Your task to perform on an android device: Clear the cart on ebay. Add "bose soundlink" to the cart on ebay, then select checkout. Image 0: 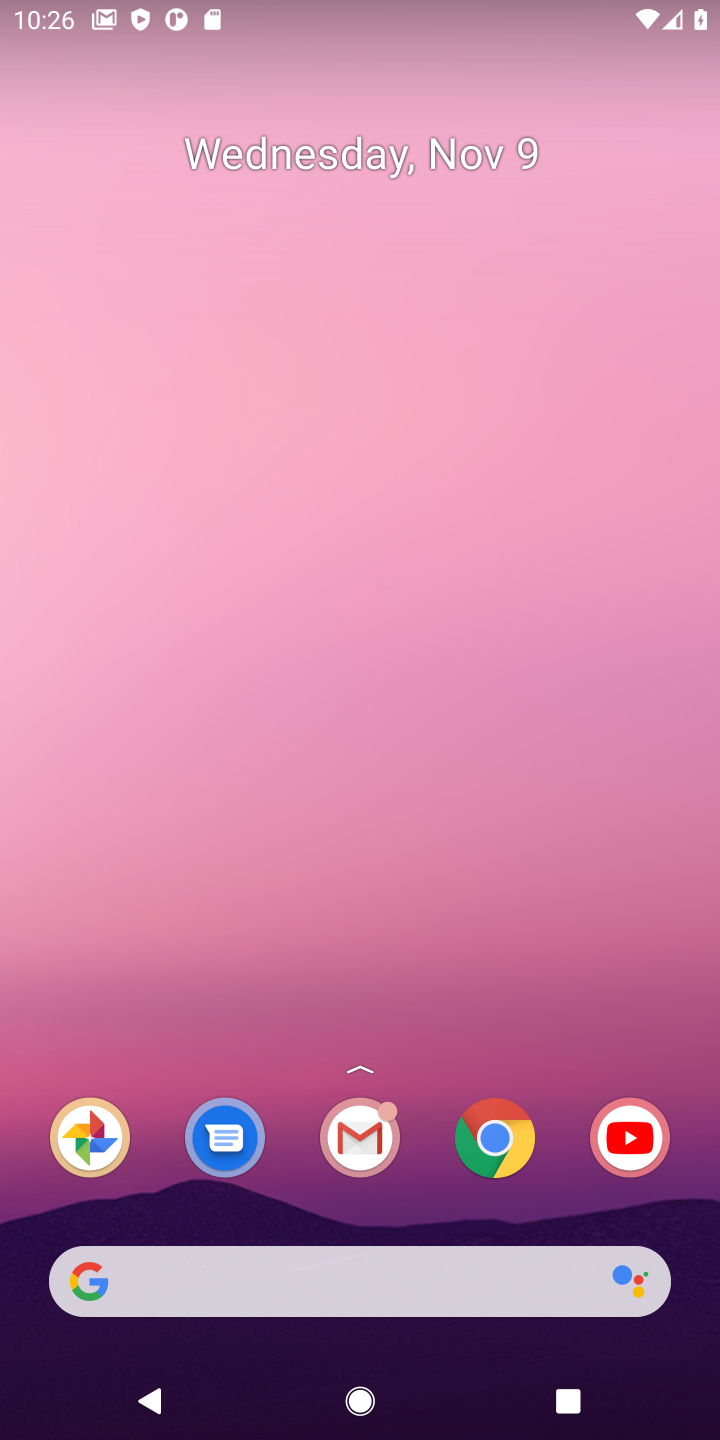
Step 0: drag from (426, 795) to (485, 157)
Your task to perform on an android device: Clear the cart on ebay. Add "bose soundlink" to the cart on ebay, then select checkout. Image 1: 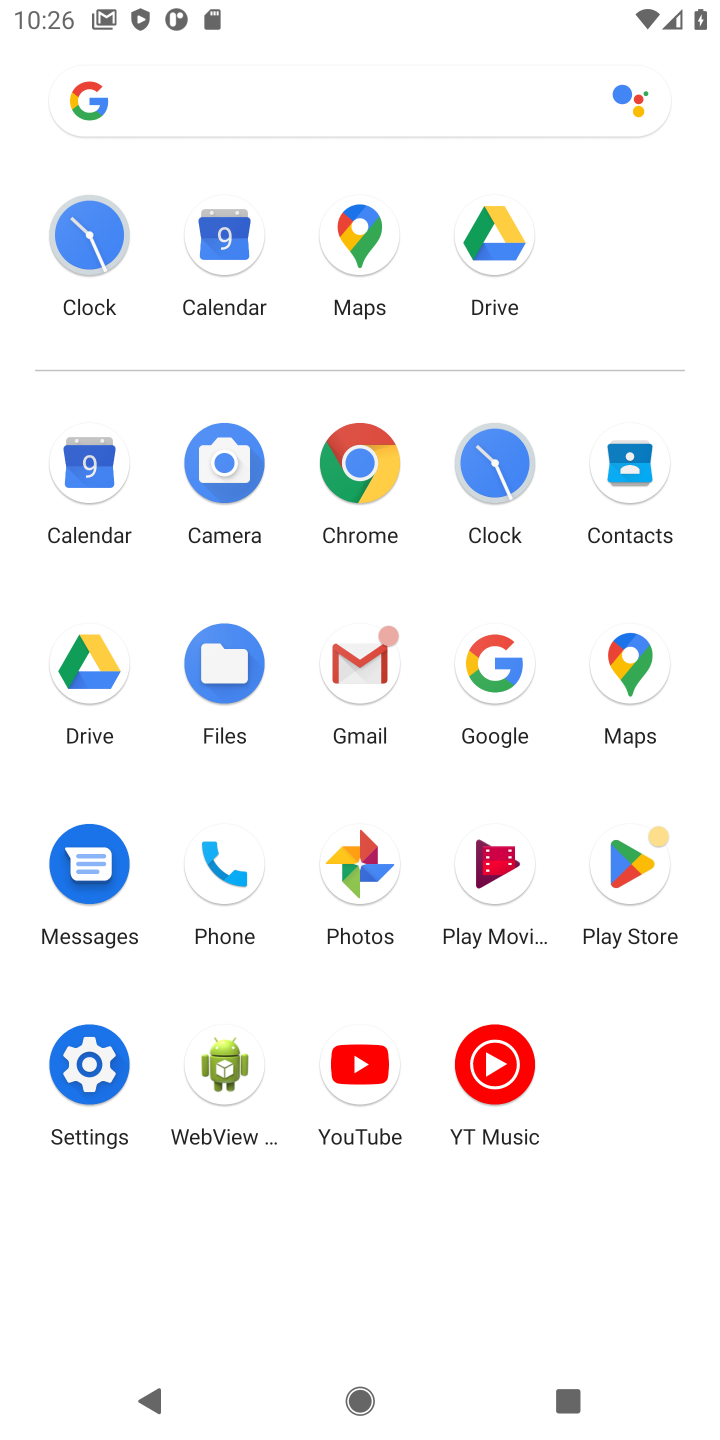
Step 1: click (347, 466)
Your task to perform on an android device: Clear the cart on ebay. Add "bose soundlink" to the cart on ebay, then select checkout. Image 2: 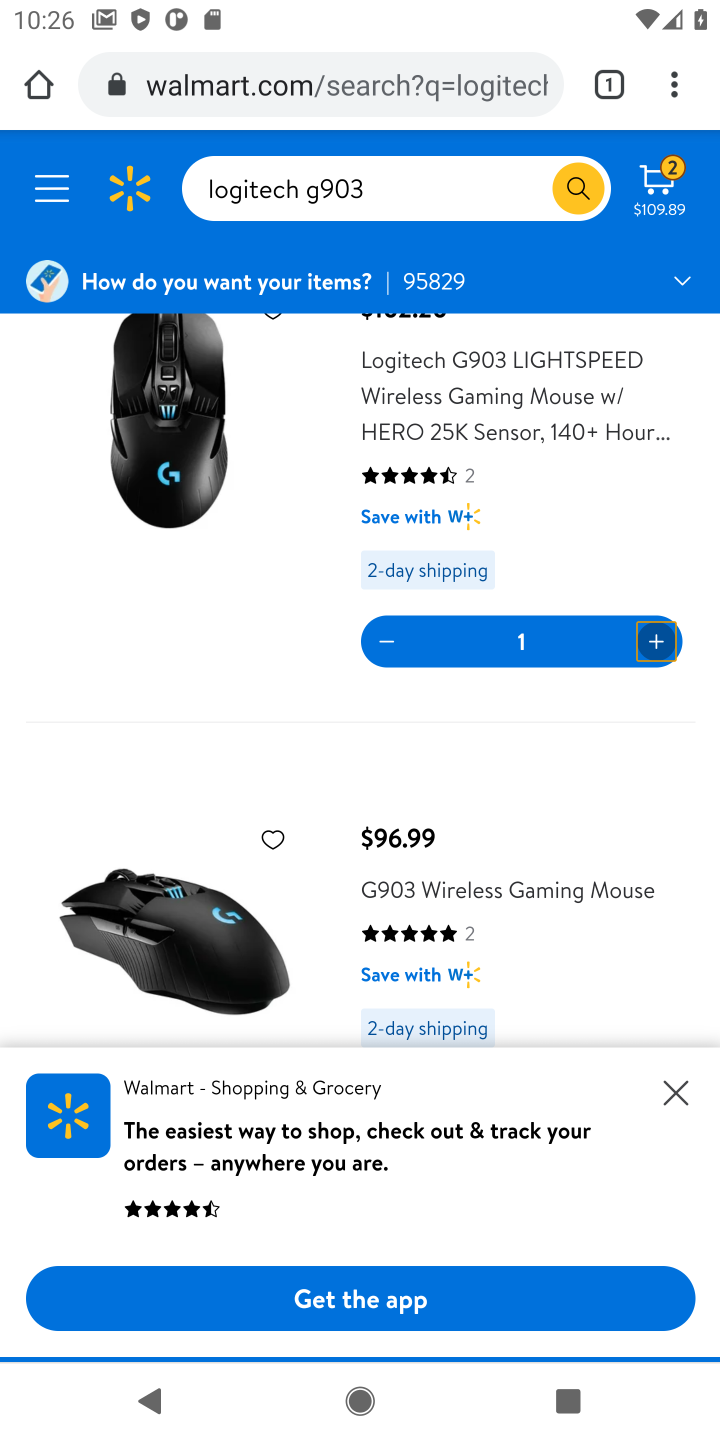
Step 2: click (434, 87)
Your task to perform on an android device: Clear the cart on ebay. Add "bose soundlink" to the cart on ebay, then select checkout. Image 3: 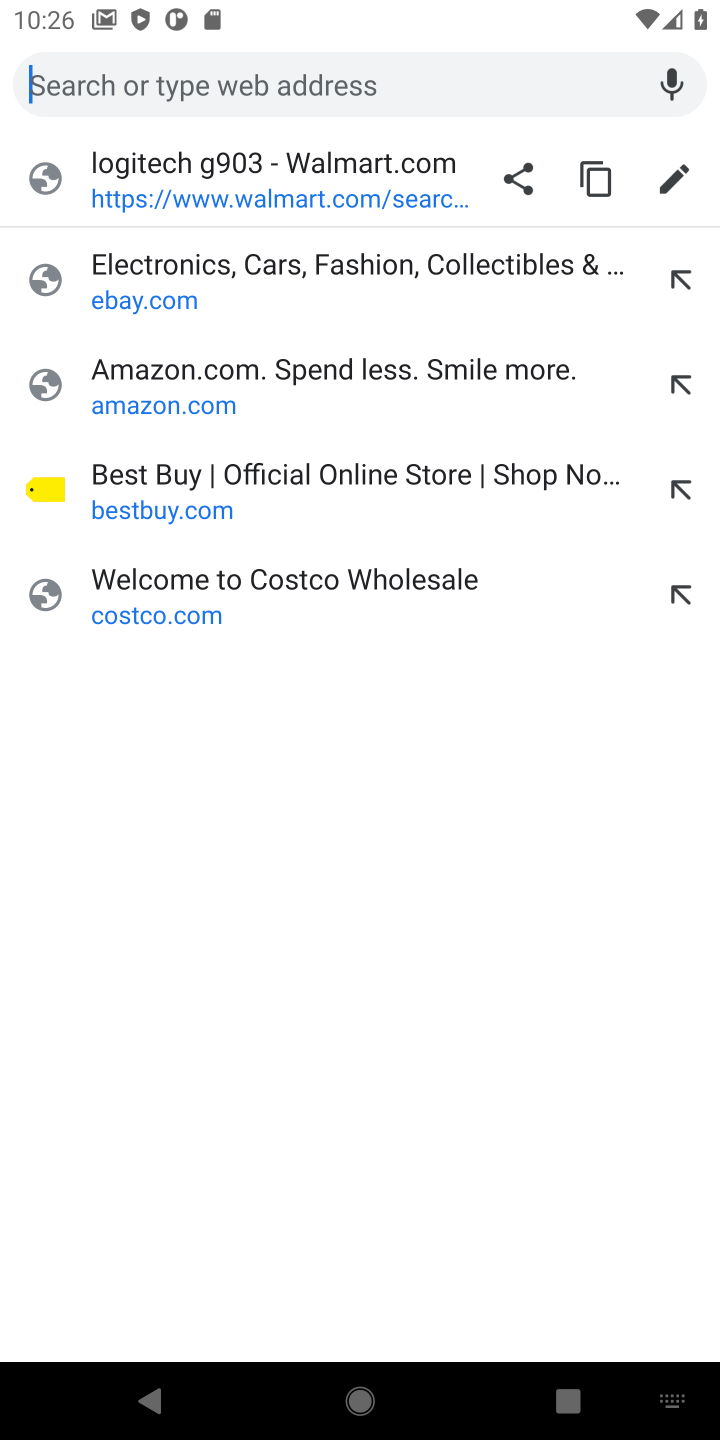
Step 3: type "ebay.com"
Your task to perform on an android device: Clear the cart on ebay. Add "bose soundlink" to the cart on ebay, then select checkout. Image 4: 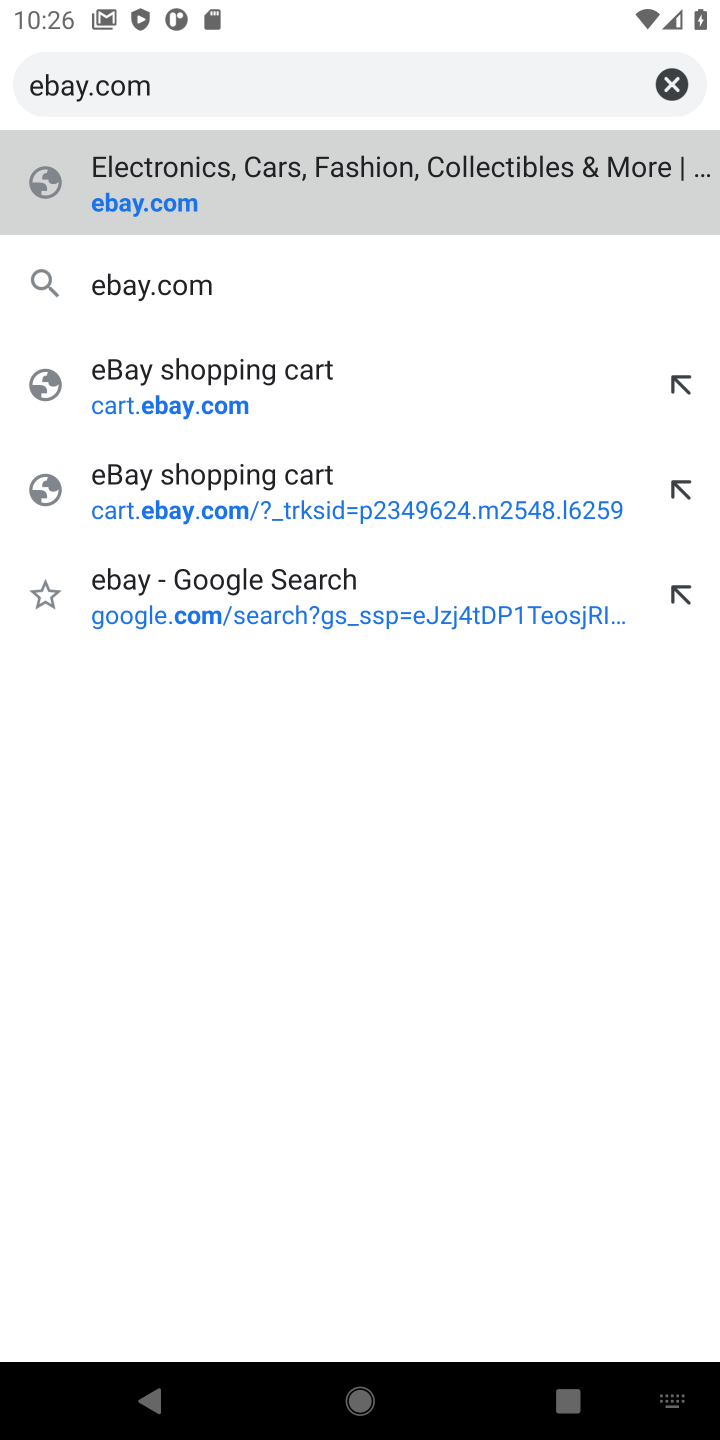
Step 4: press enter
Your task to perform on an android device: Clear the cart on ebay. Add "bose soundlink" to the cart on ebay, then select checkout. Image 5: 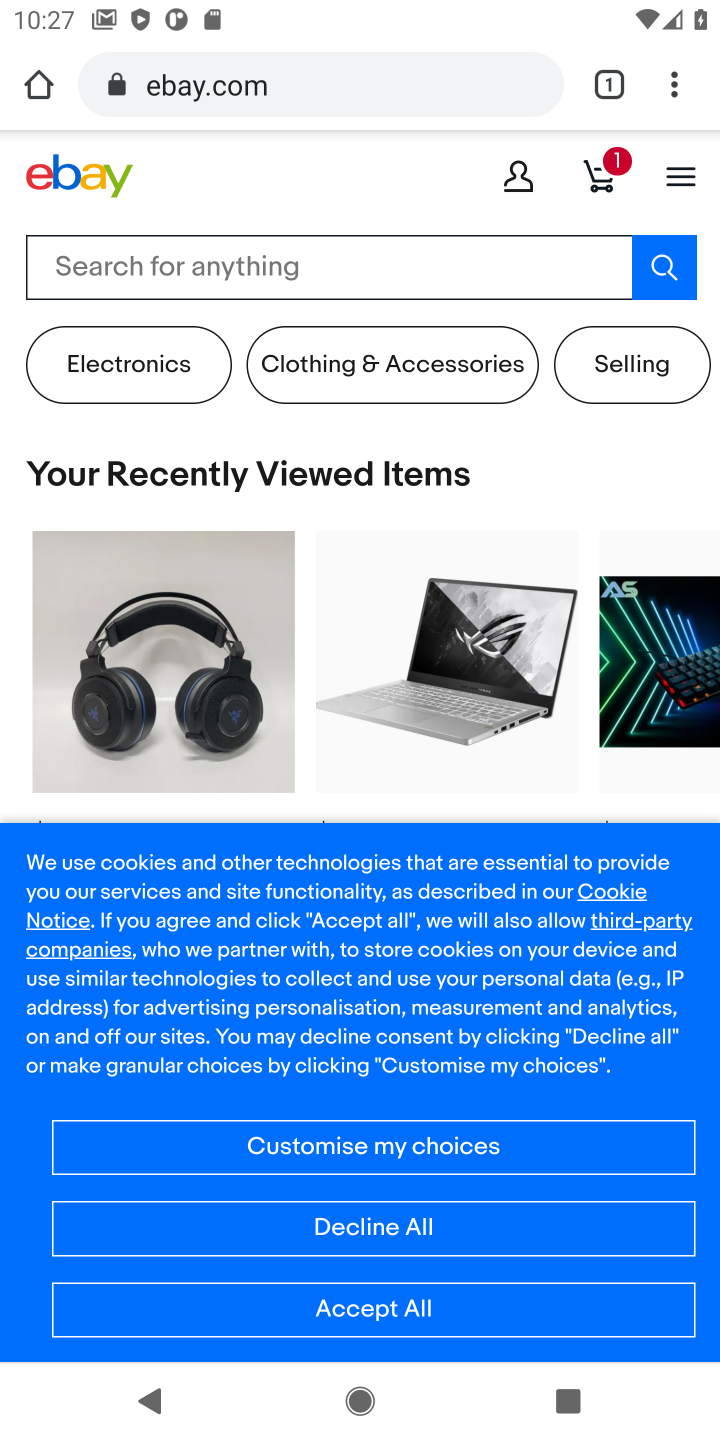
Step 5: click (603, 153)
Your task to perform on an android device: Clear the cart on ebay. Add "bose soundlink" to the cart on ebay, then select checkout. Image 6: 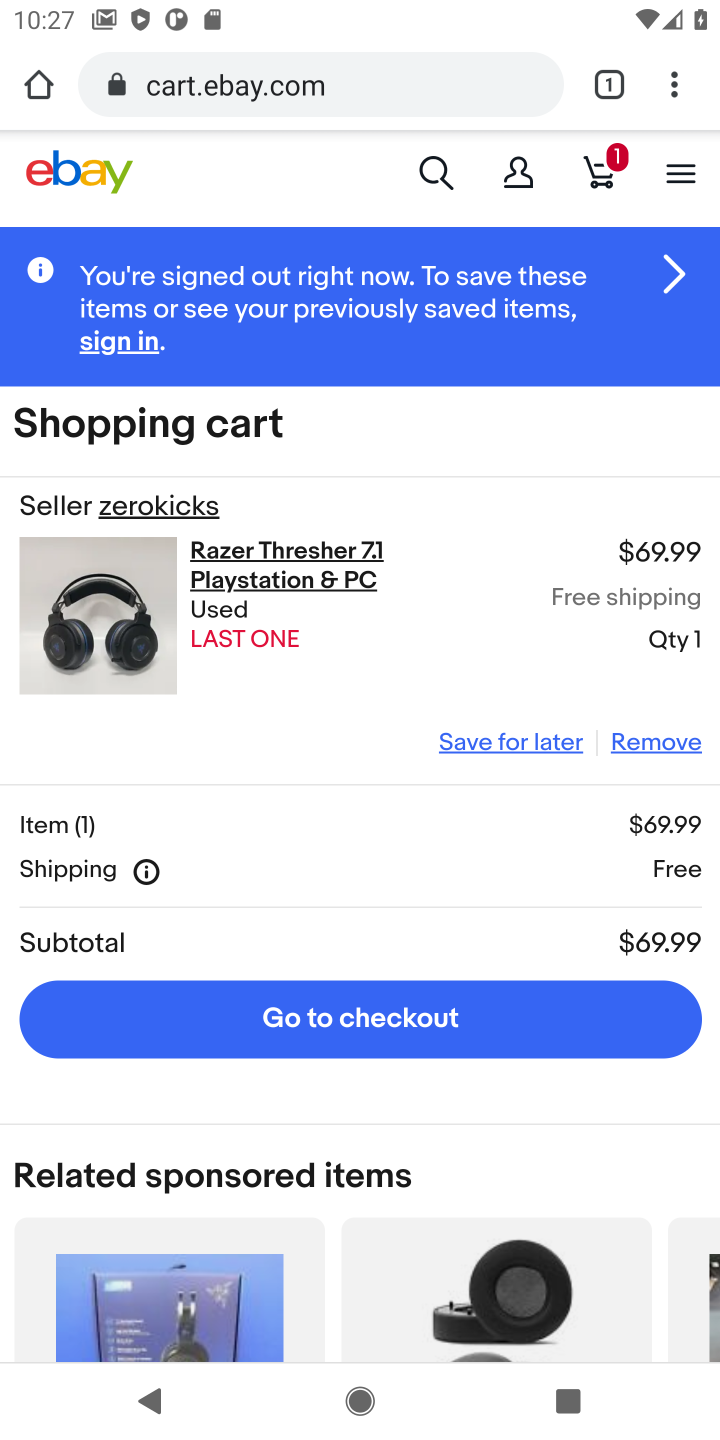
Step 6: click (668, 740)
Your task to perform on an android device: Clear the cart on ebay. Add "bose soundlink" to the cart on ebay, then select checkout. Image 7: 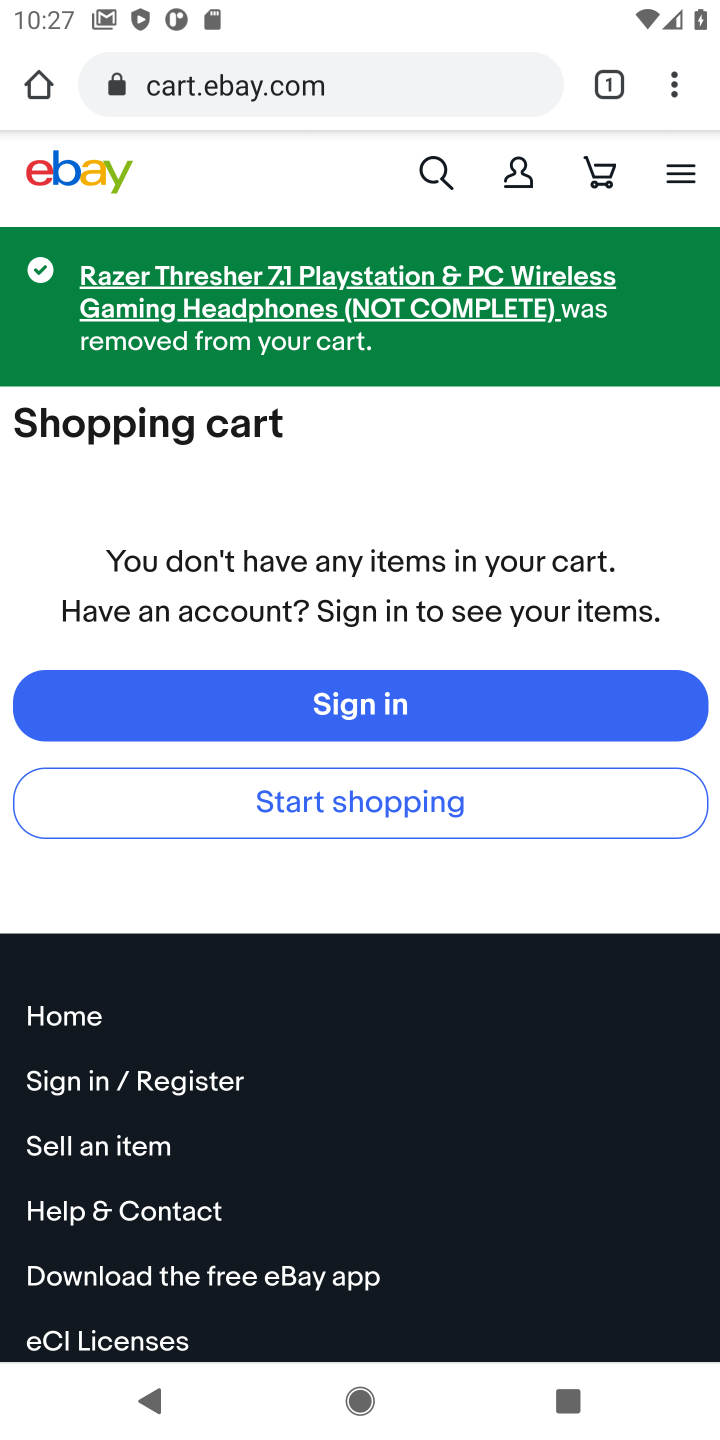
Step 7: click (428, 174)
Your task to perform on an android device: Clear the cart on ebay. Add "bose soundlink" to the cart on ebay, then select checkout. Image 8: 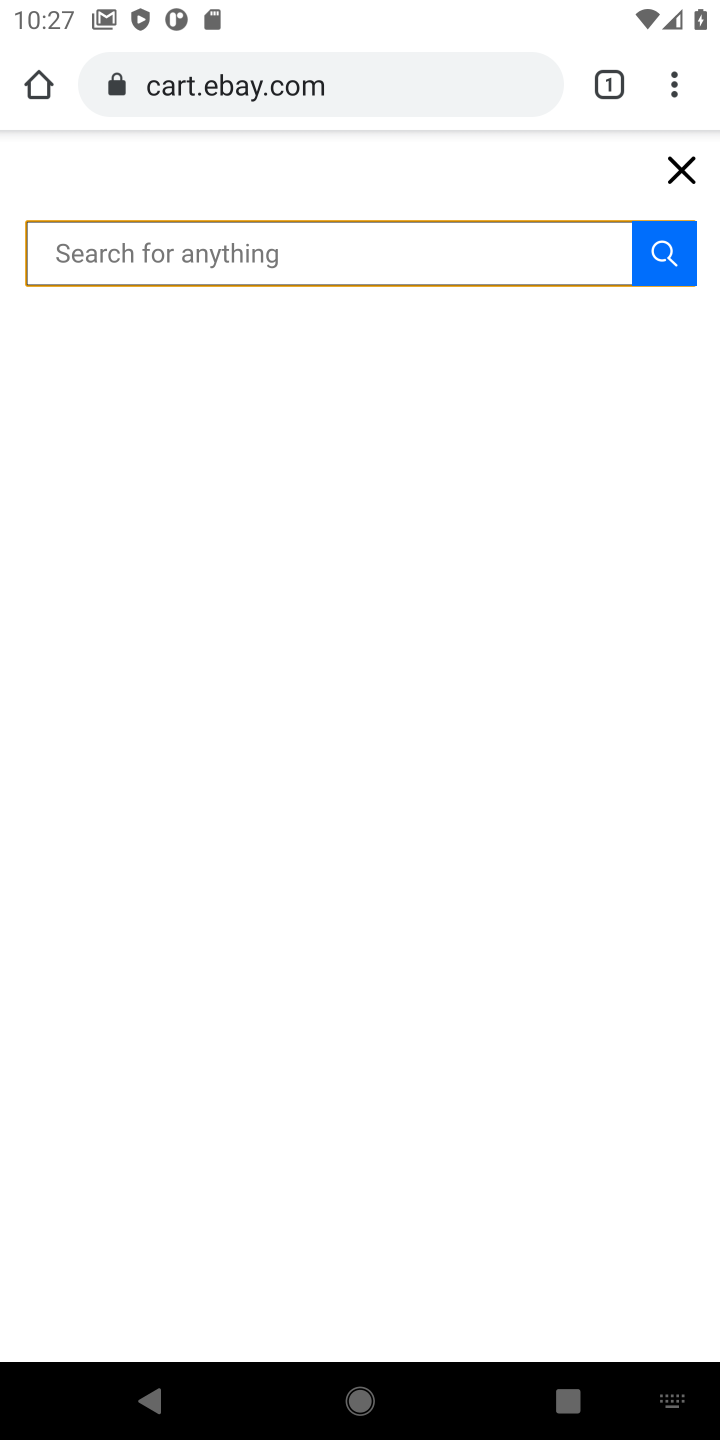
Step 8: type "bose soundlink"
Your task to perform on an android device: Clear the cart on ebay. Add "bose soundlink" to the cart on ebay, then select checkout. Image 9: 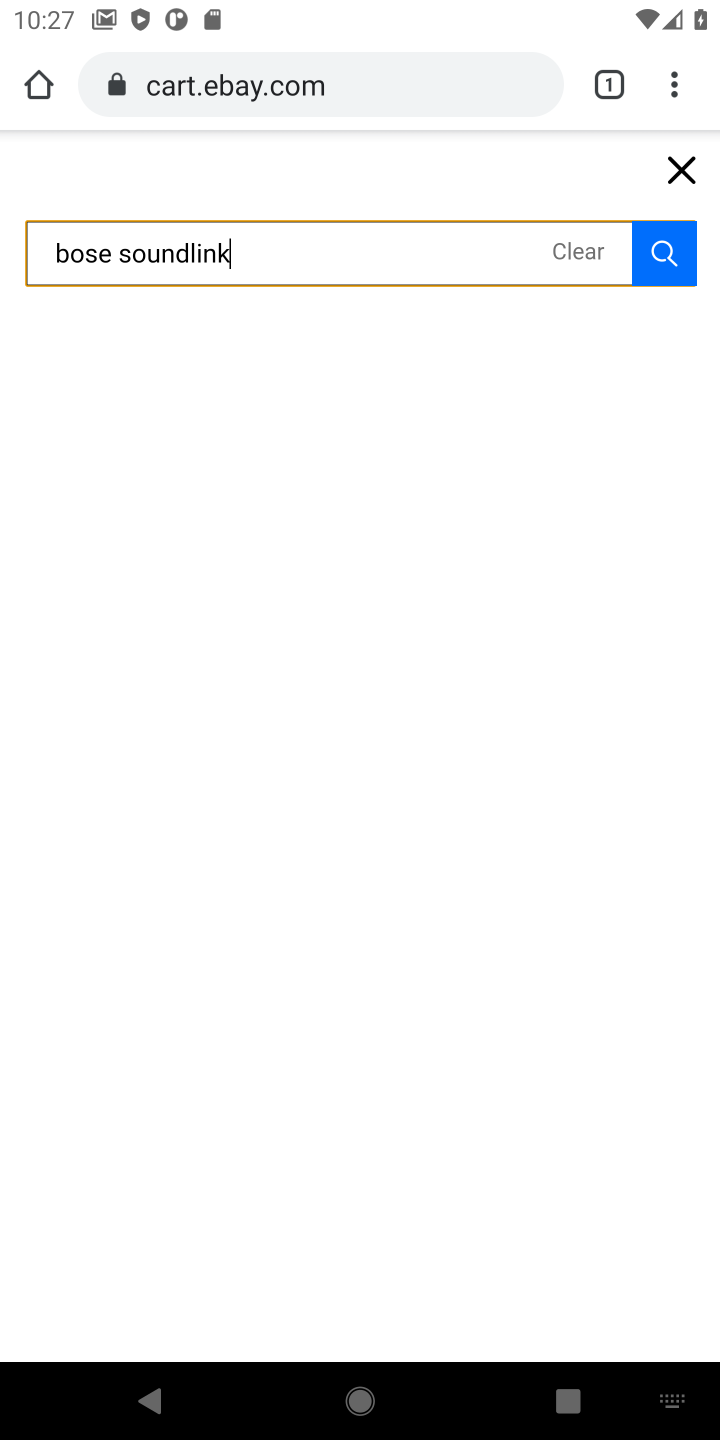
Step 9: press enter
Your task to perform on an android device: Clear the cart on ebay. Add "bose soundlink" to the cart on ebay, then select checkout. Image 10: 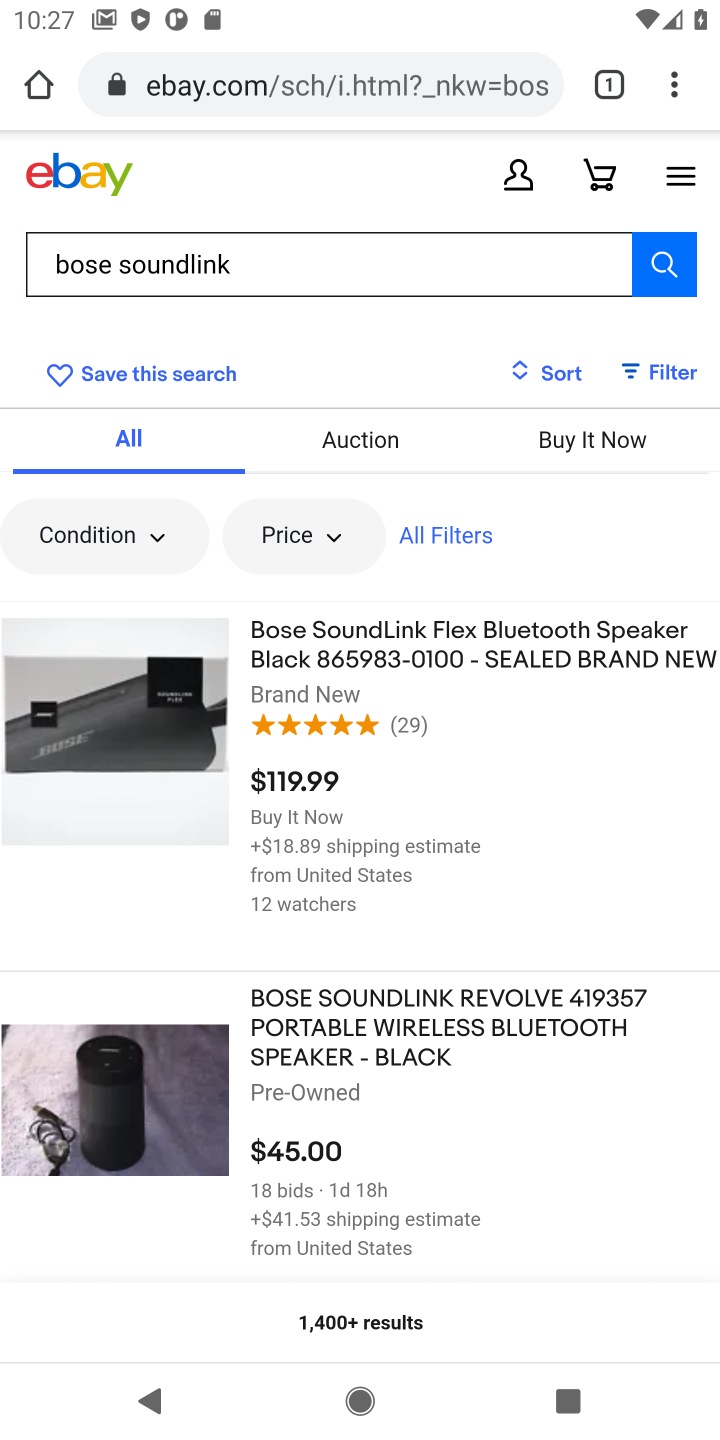
Step 10: click (407, 635)
Your task to perform on an android device: Clear the cart on ebay. Add "bose soundlink" to the cart on ebay, then select checkout. Image 11: 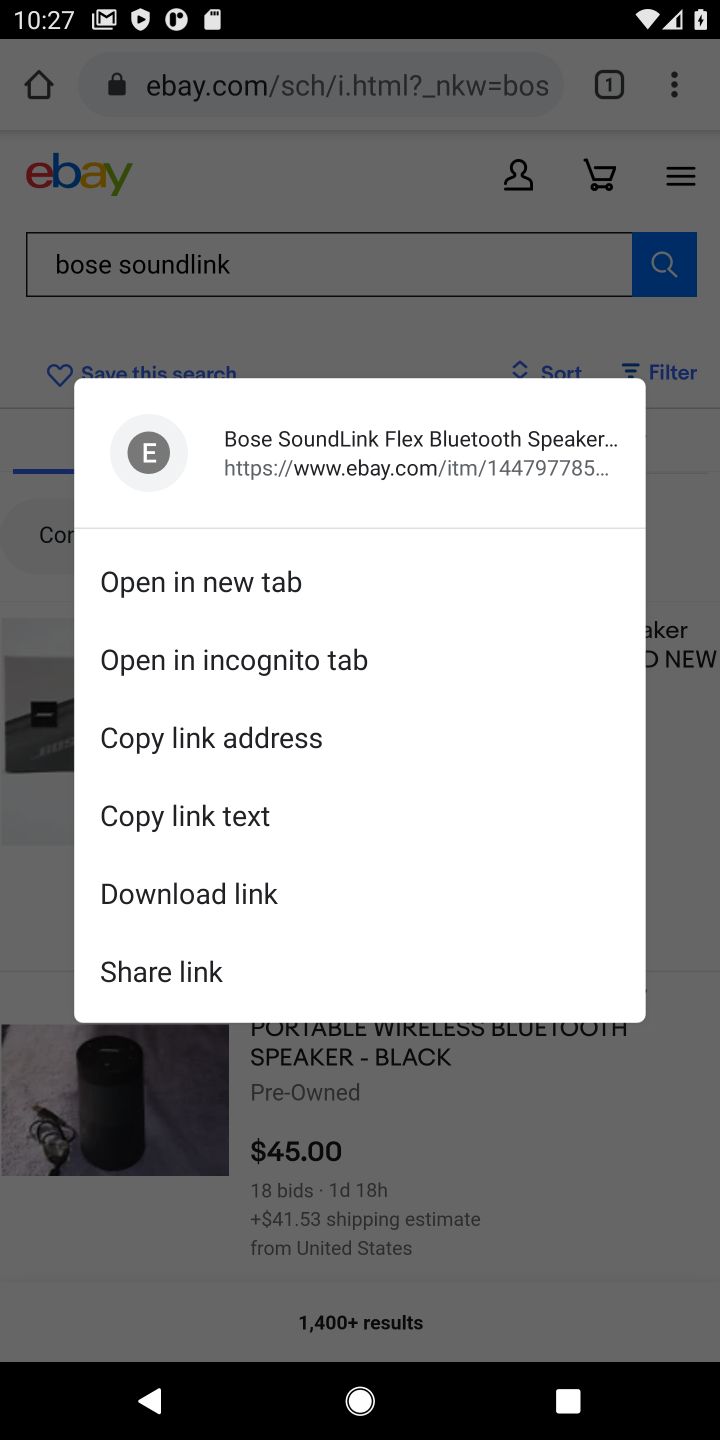
Step 11: click (698, 638)
Your task to perform on an android device: Clear the cart on ebay. Add "bose soundlink" to the cart on ebay, then select checkout. Image 12: 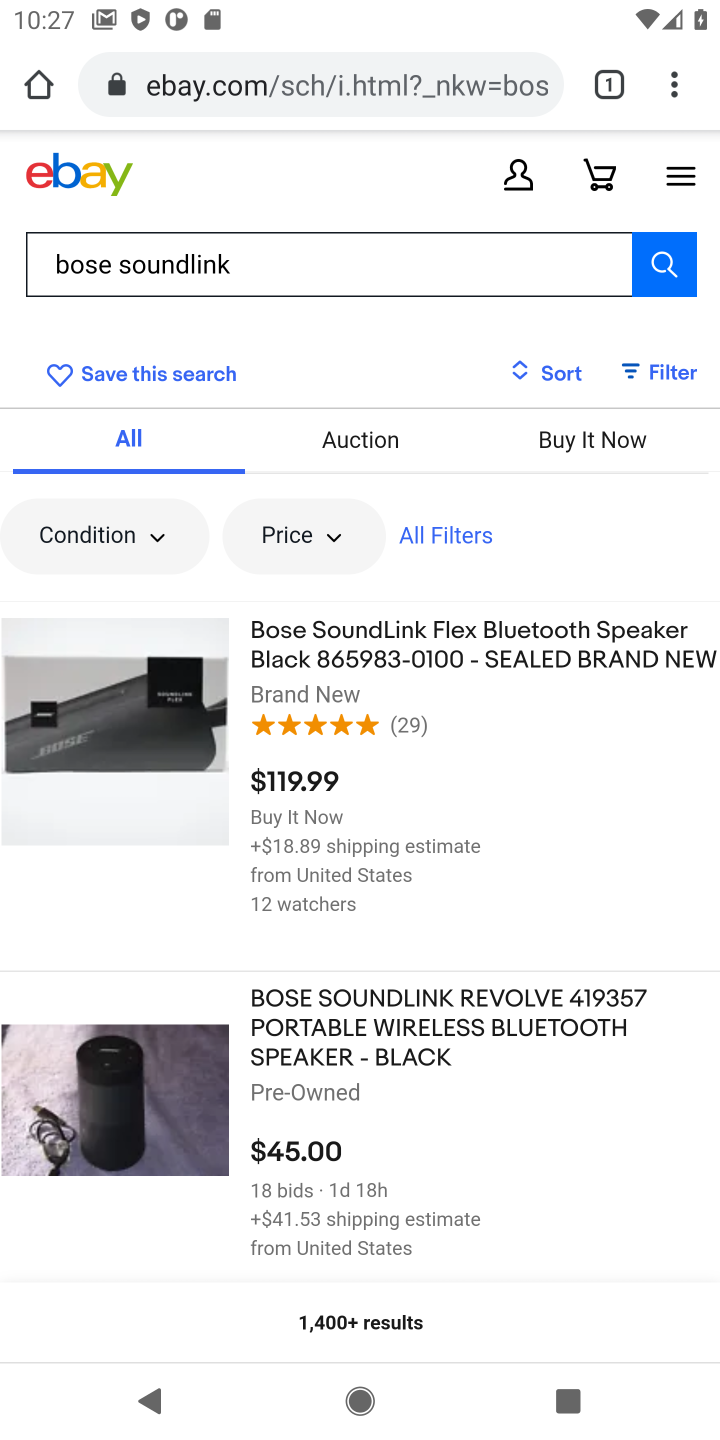
Step 12: click (379, 645)
Your task to perform on an android device: Clear the cart on ebay. Add "bose soundlink" to the cart on ebay, then select checkout. Image 13: 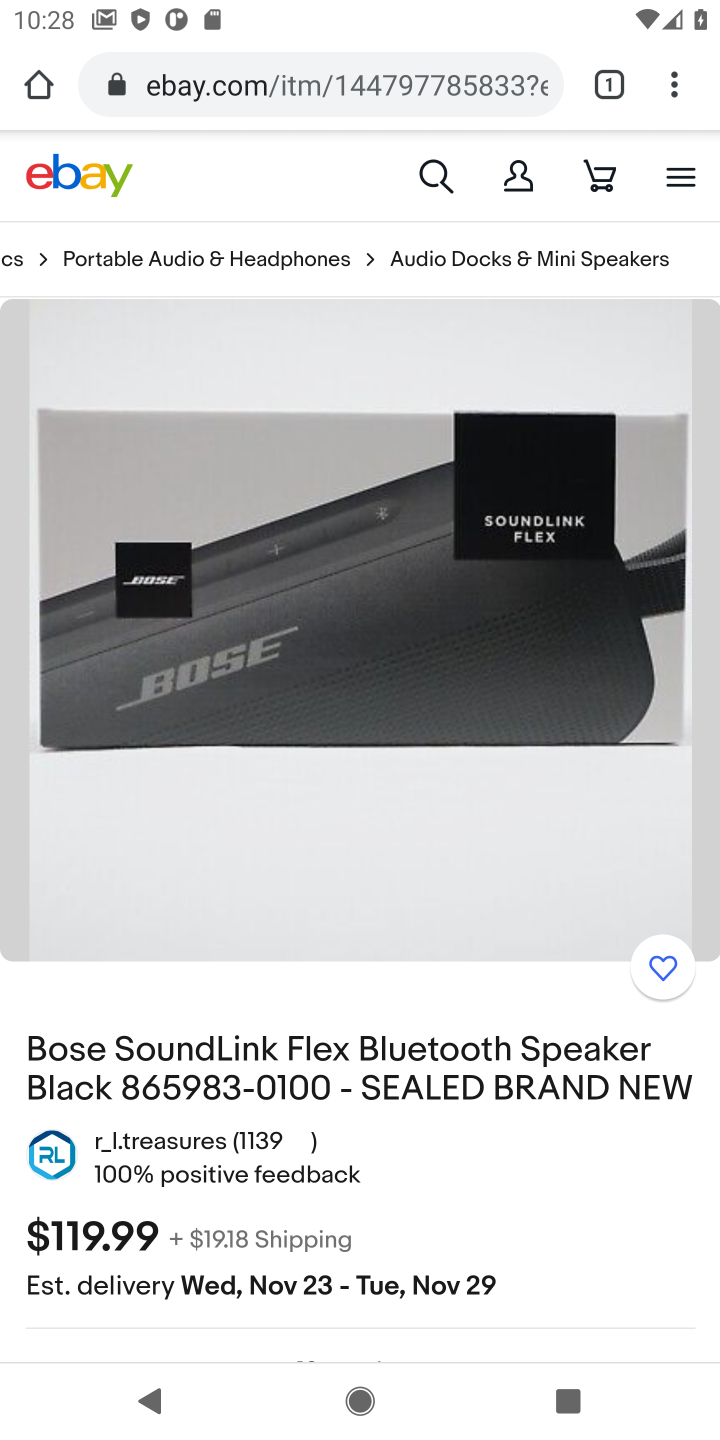
Step 13: drag from (475, 1162) to (381, 153)
Your task to perform on an android device: Clear the cart on ebay. Add "bose soundlink" to the cart on ebay, then select checkout. Image 14: 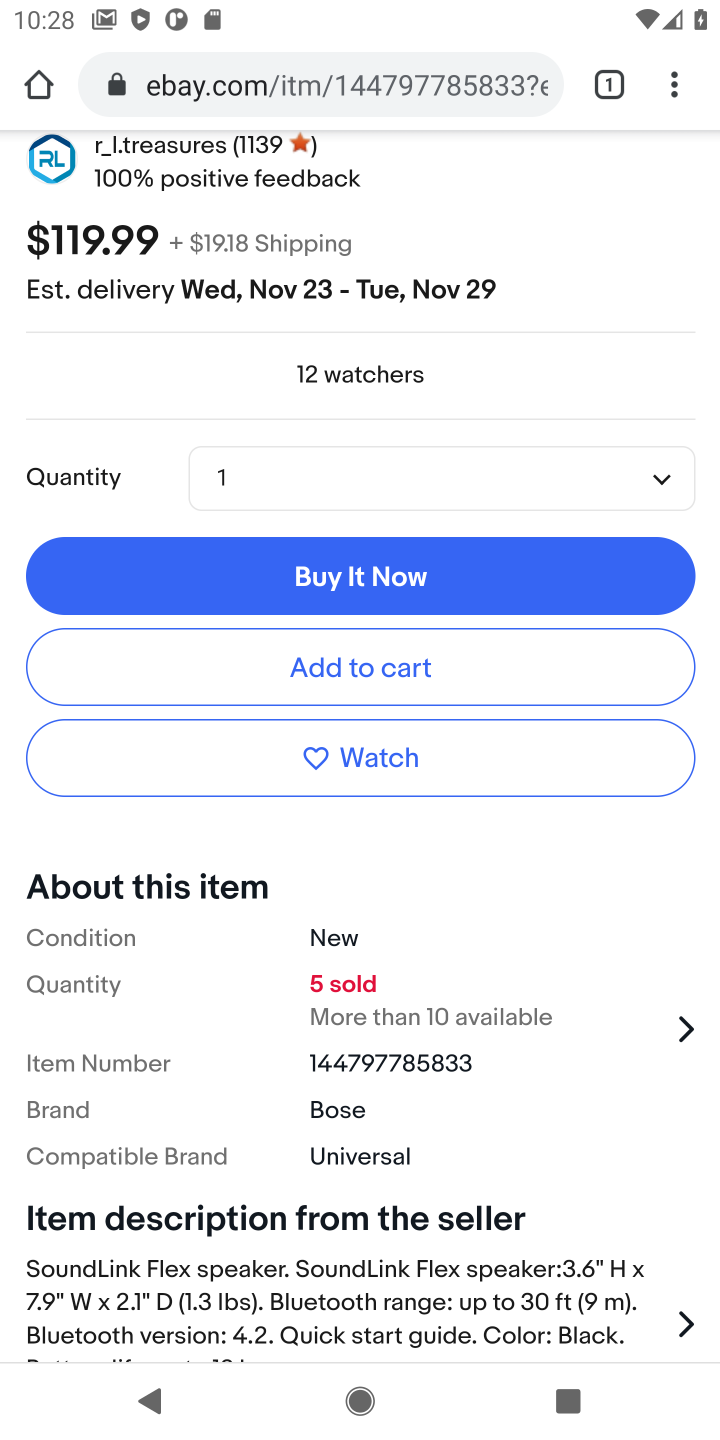
Step 14: click (380, 677)
Your task to perform on an android device: Clear the cart on ebay. Add "bose soundlink" to the cart on ebay, then select checkout. Image 15: 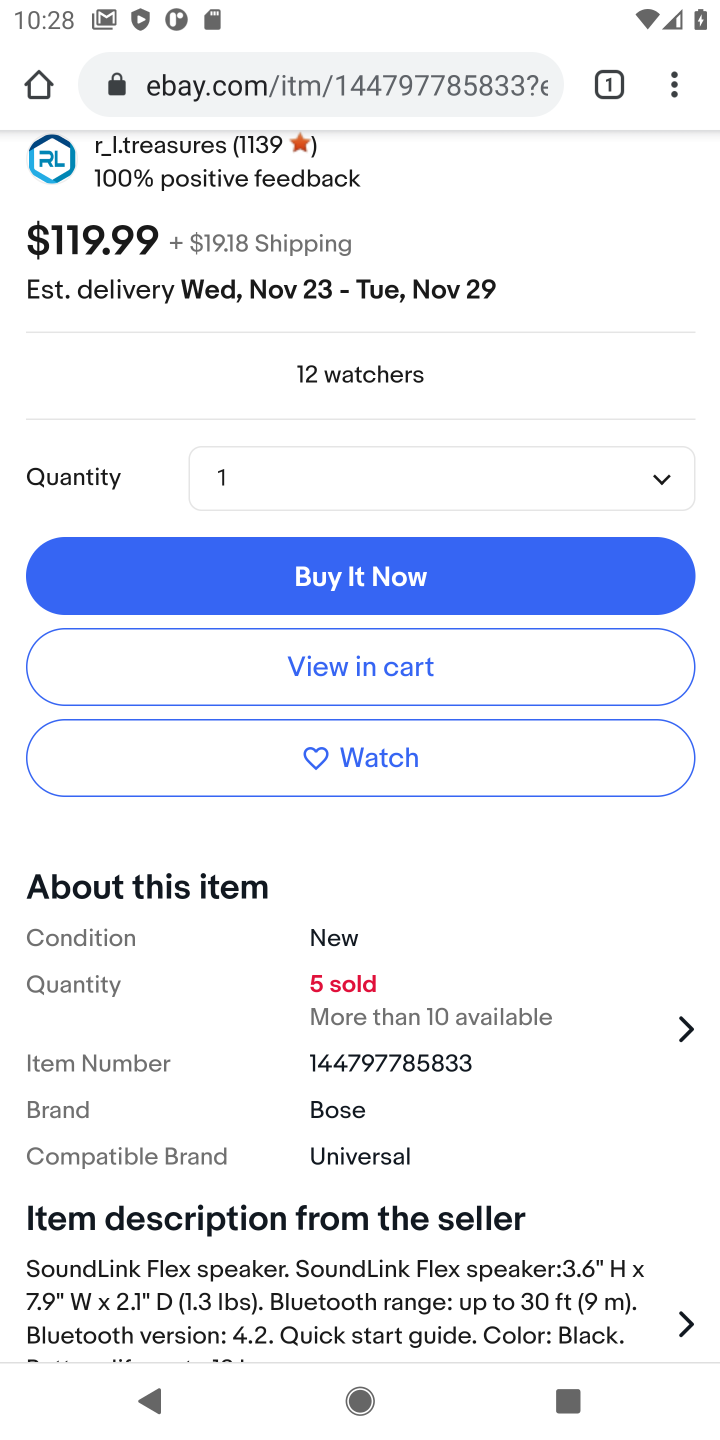
Step 15: click (371, 666)
Your task to perform on an android device: Clear the cart on ebay. Add "bose soundlink" to the cart on ebay, then select checkout. Image 16: 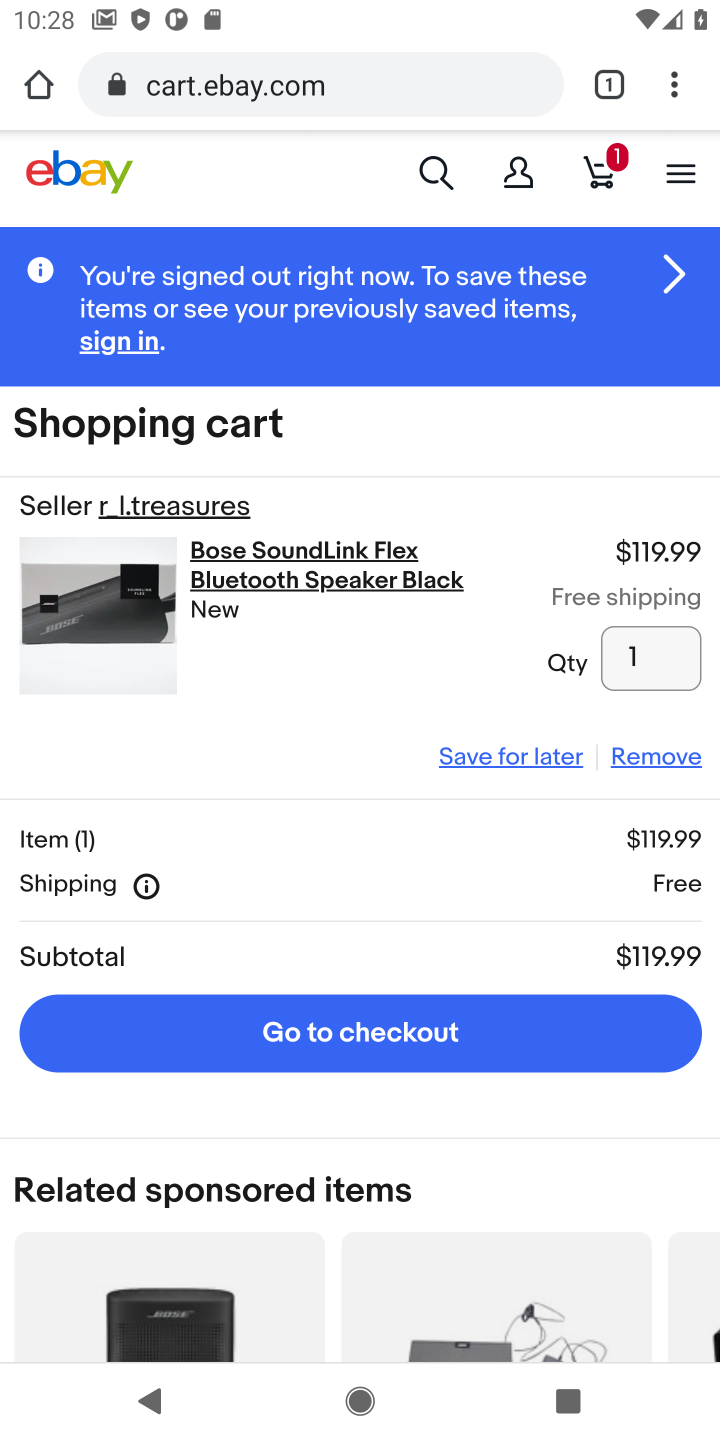
Step 16: click (416, 1042)
Your task to perform on an android device: Clear the cart on ebay. Add "bose soundlink" to the cart on ebay, then select checkout. Image 17: 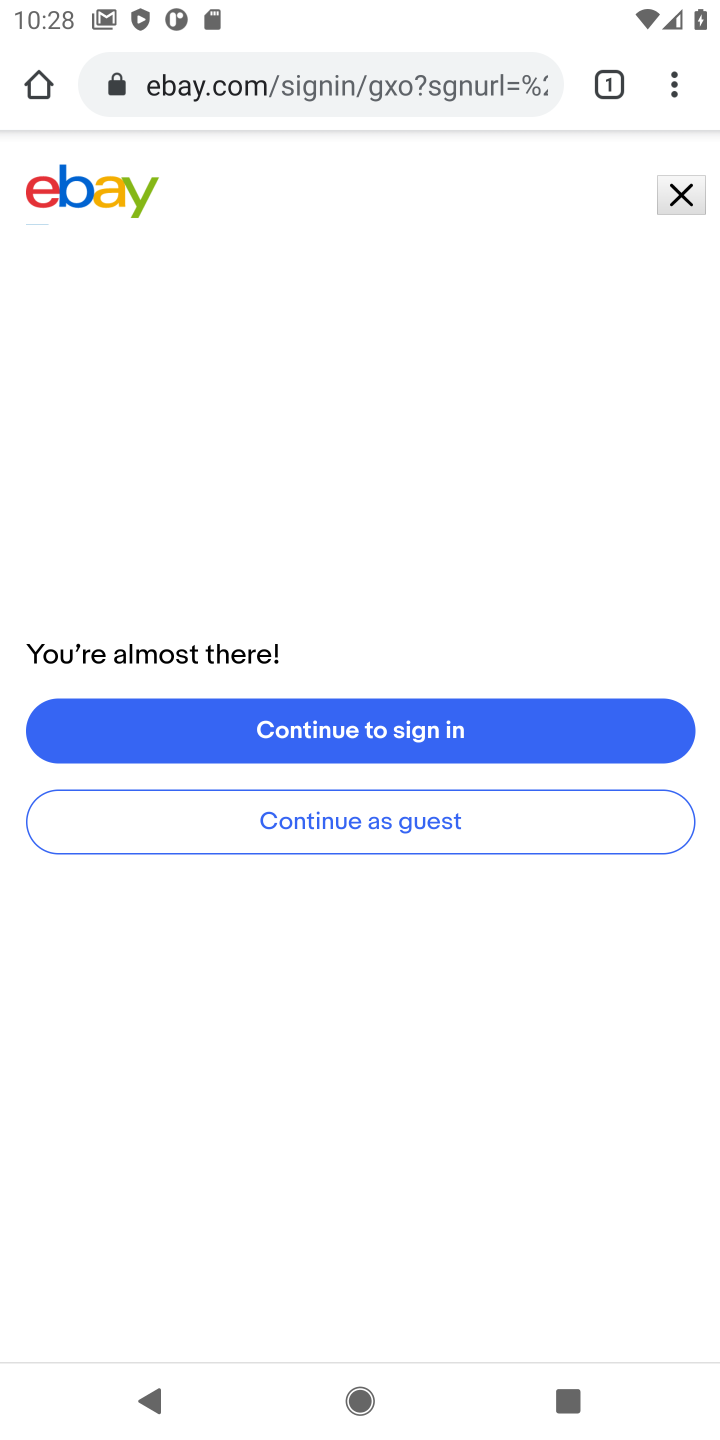
Step 17: task complete